Your task to perform on an android device: Open my contact list Image 0: 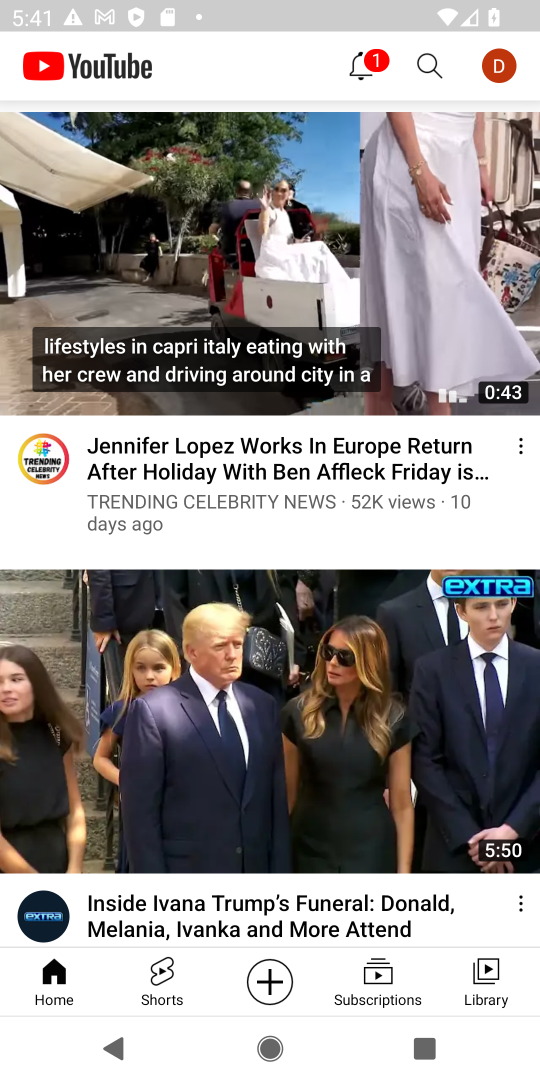
Step 0: press home button
Your task to perform on an android device: Open my contact list Image 1: 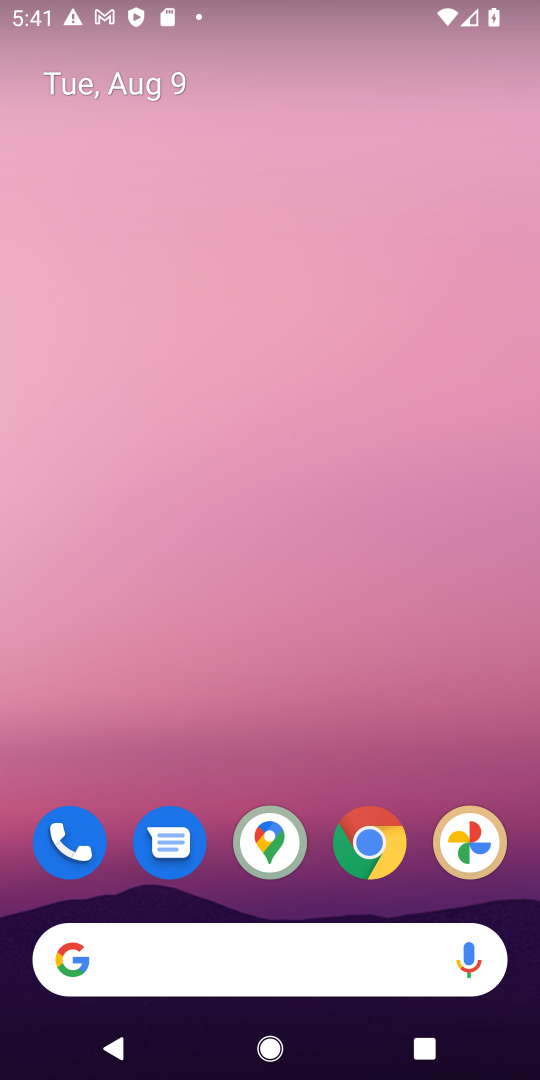
Step 1: drag from (232, 705) to (174, 228)
Your task to perform on an android device: Open my contact list Image 2: 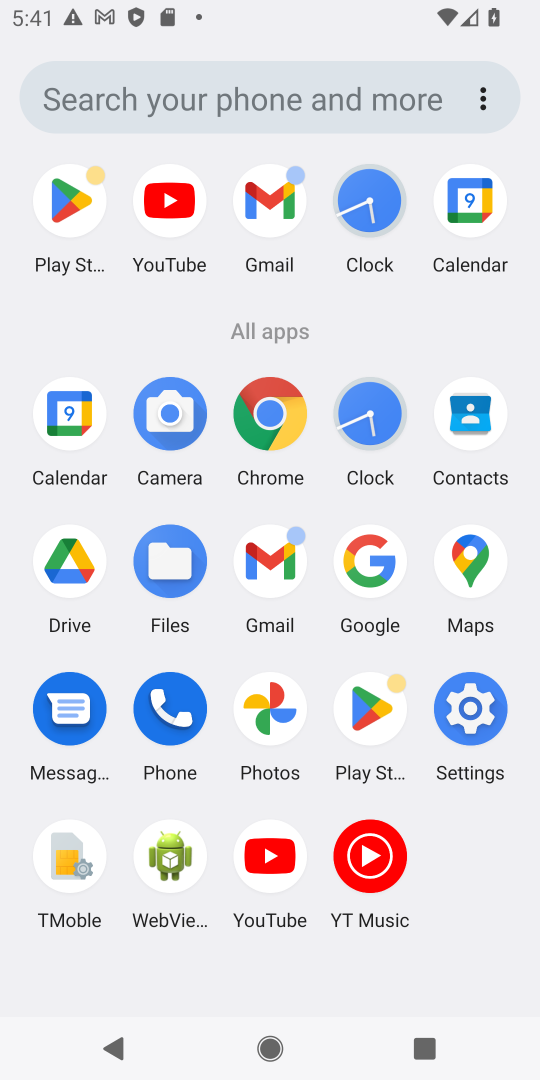
Step 2: click (184, 715)
Your task to perform on an android device: Open my contact list Image 3: 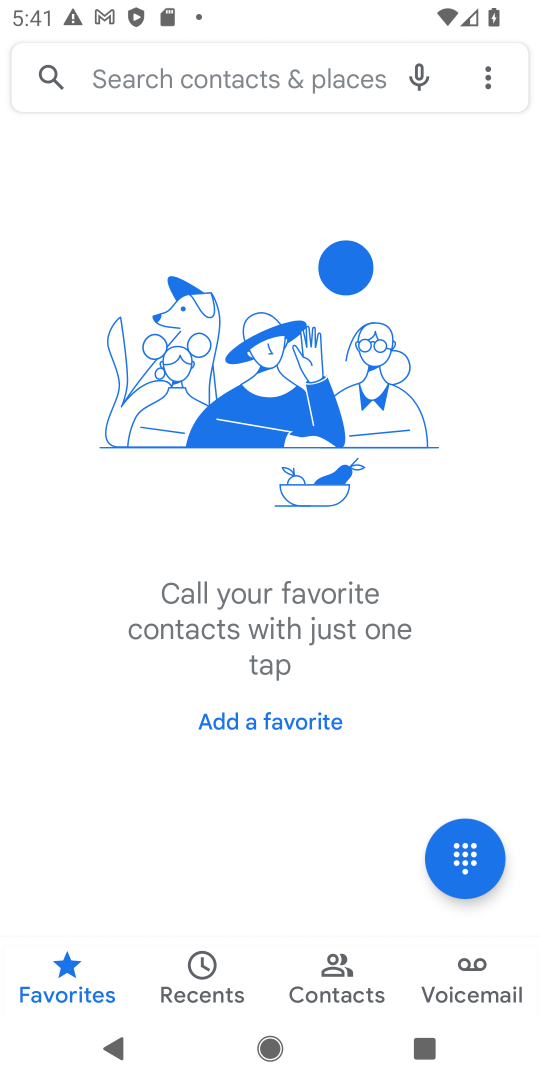
Step 3: click (347, 967)
Your task to perform on an android device: Open my contact list Image 4: 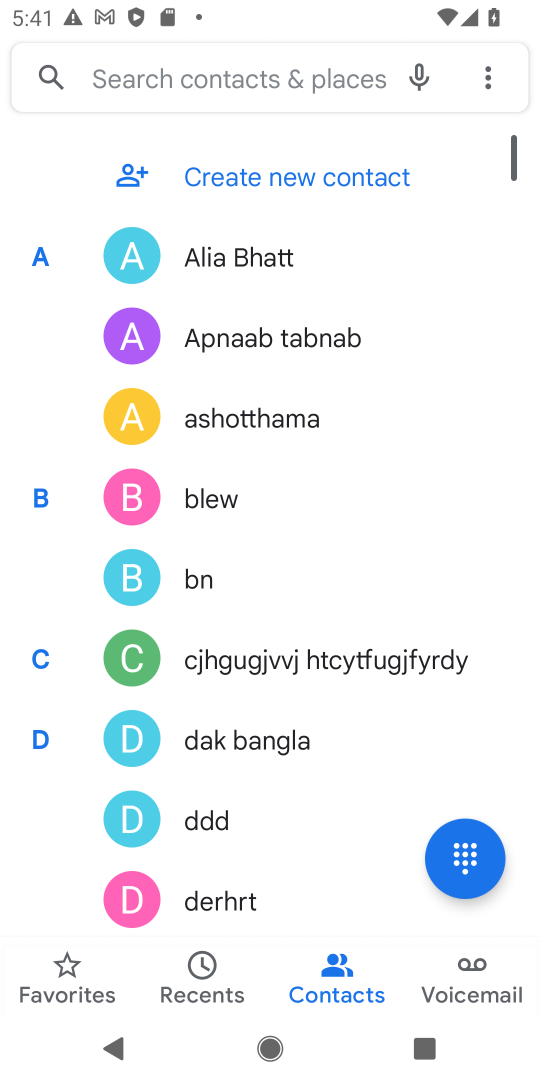
Step 4: task complete